Your task to perform on an android device: turn off notifications settings in the gmail app Image 0: 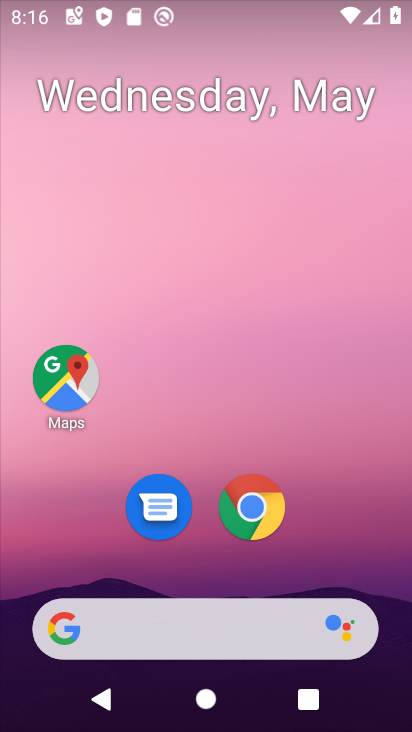
Step 0: drag from (362, 543) to (339, 258)
Your task to perform on an android device: turn off notifications settings in the gmail app Image 1: 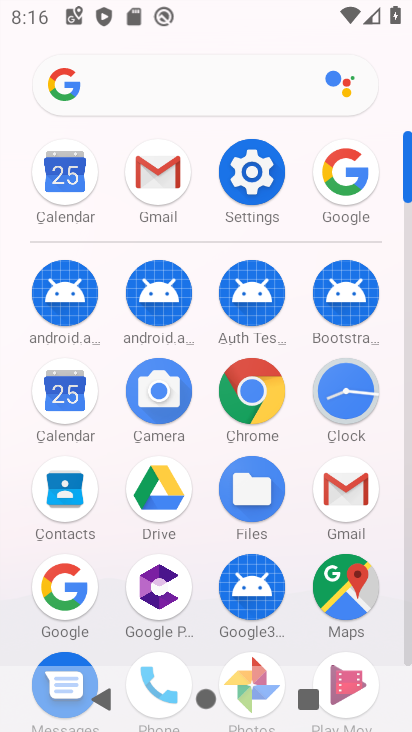
Step 1: click (344, 470)
Your task to perform on an android device: turn off notifications settings in the gmail app Image 2: 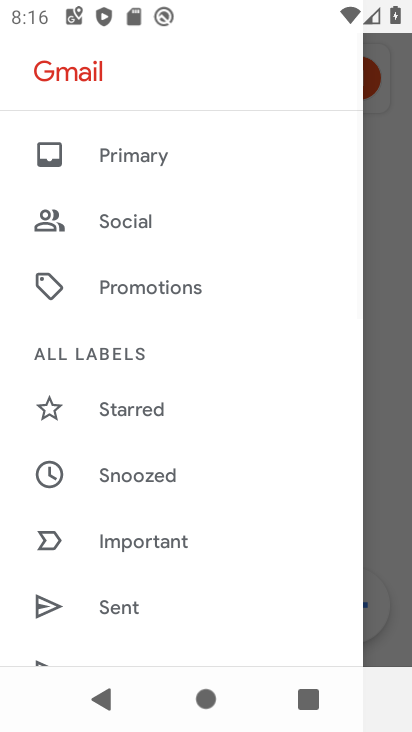
Step 2: drag from (162, 584) to (188, 184)
Your task to perform on an android device: turn off notifications settings in the gmail app Image 3: 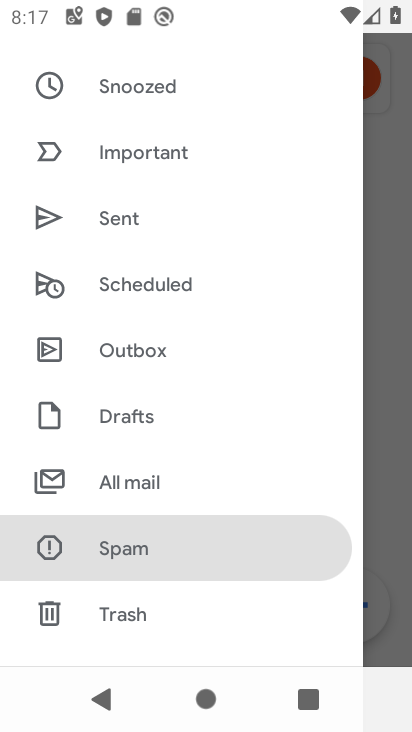
Step 3: drag from (251, 554) to (228, 212)
Your task to perform on an android device: turn off notifications settings in the gmail app Image 4: 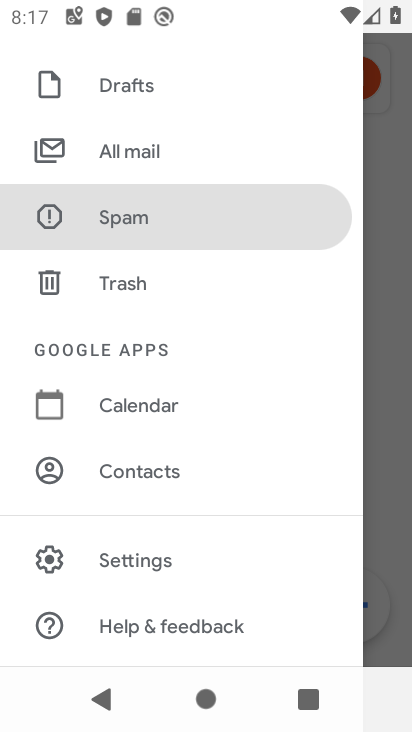
Step 4: click (143, 556)
Your task to perform on an android device: turn off notifications settings in the gmail app Image 5: 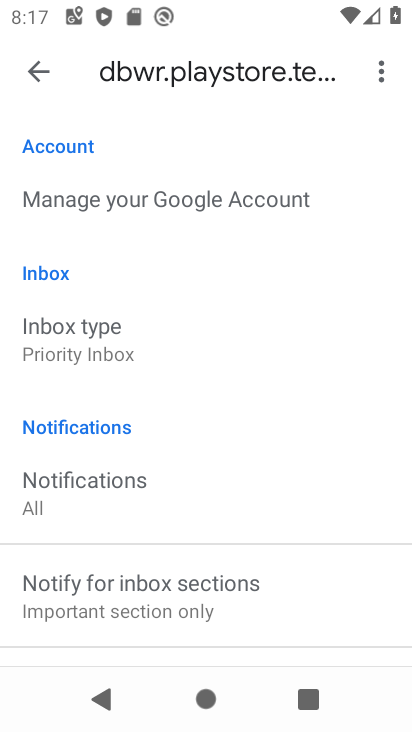
Step 5: drag from (156, 535) to (163, 301)
Your task to perform on an android device: turn off notifications settings in the gmail app Image 6: 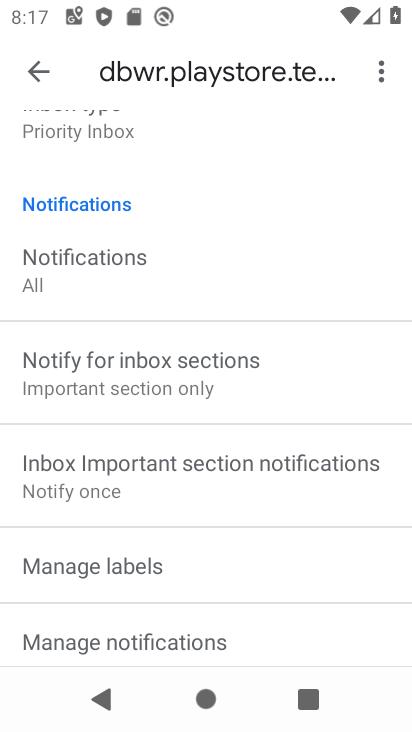
Step 6: click (121, 280)
Your task to perform on an android device: turn off notifications settings in the gmail app Image 7: 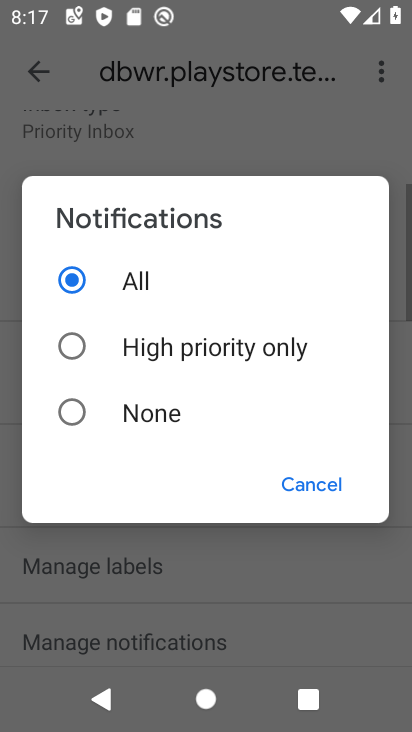
Step 7: click (145, 421)
Your task to perform on an android device: turn off notifications settings in the gmail app Image 8: 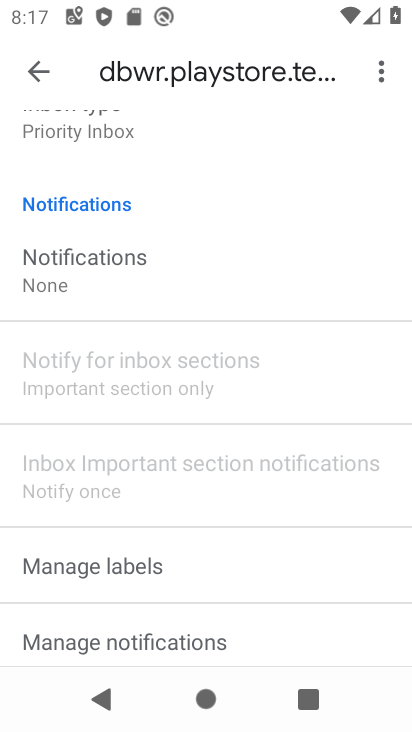
Step 8: task complete